Your task to perform on an android device: Search for the new lego star wars 2021 on Target Image 0: 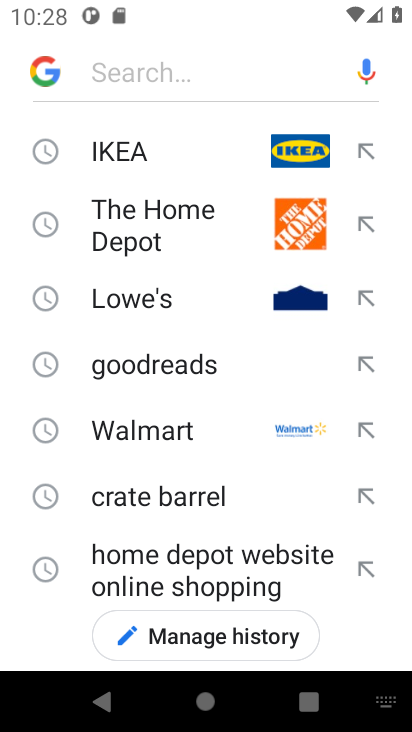
Step 0: press home button
Your task to perform on an android device: Search for the new lego star wars 2021 on Target Image 1: 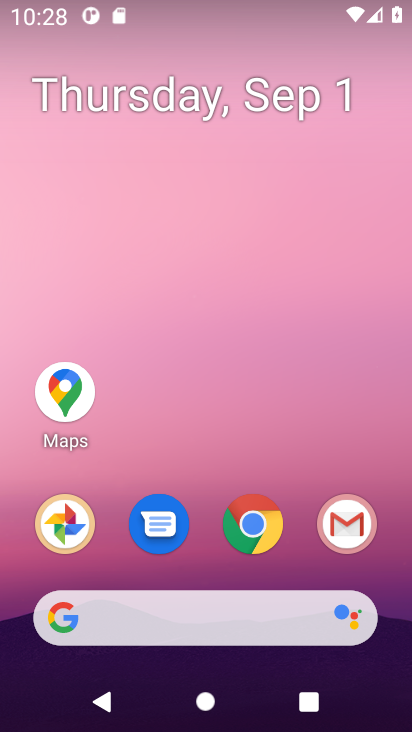
Step 1: click (216, 615)
Your task to perform on an android device: Search for the new lego star wars 2021 on Target Image 2: 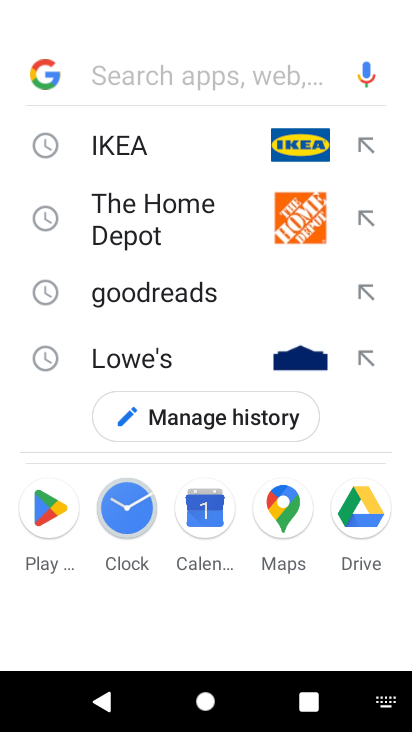
Step 2: press enter
Your task to perform on an android device: Search for the new lego star wars 2021 on Target Image 3: 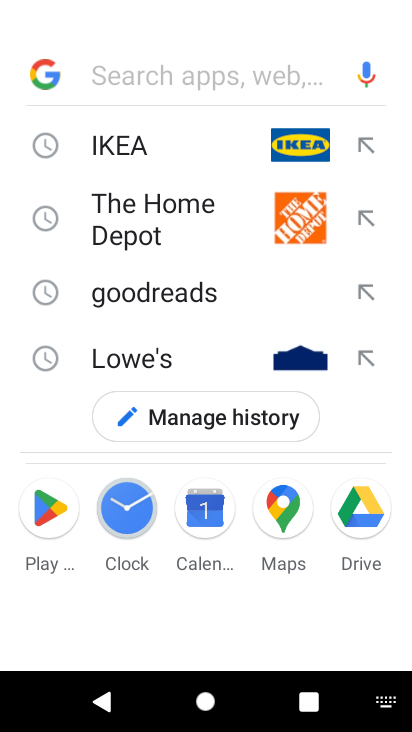
Step 3: type "target"
Your task to perform on an android device: Search for the new lego star wars 2021 on Target Image 4: 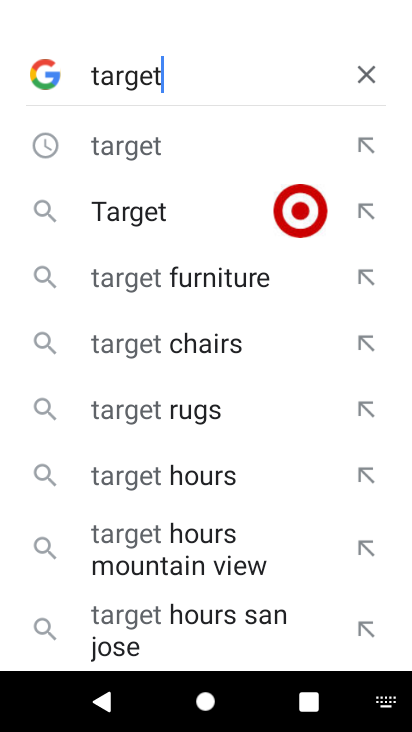
Step 4: click (147, 144)
Your task to perform on an android device: Search for the new lego star wars 2021 on Target Image 5: 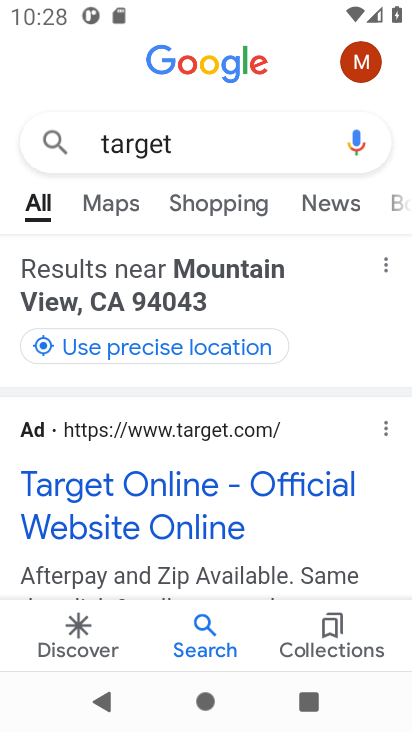
Step 5: click (216, 498)
Your task to perform on an android device: Search for the new lego star wars 2021 on Target Image 6: 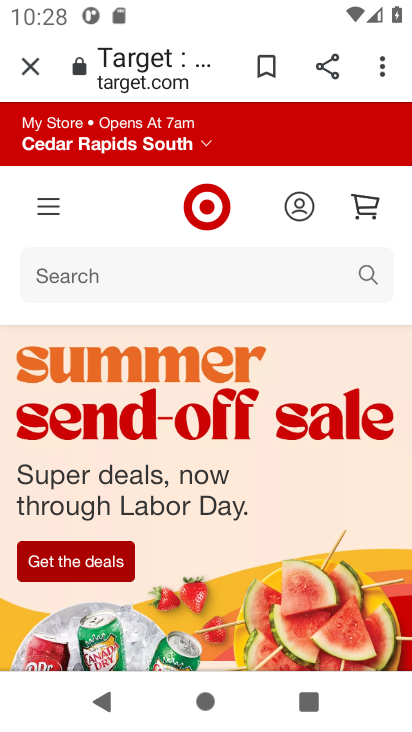
Step 6: click (165, 276)
Your task to perform on an android device: Search for the new lego star wars 2021 on Target Image 7: 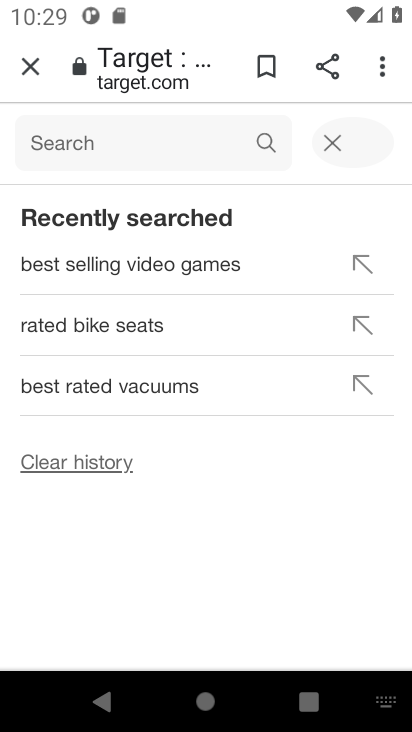
Step 7: press enter
Your task to perform on an android device: Search for the new lego star wars 2021 on Target Image 8: 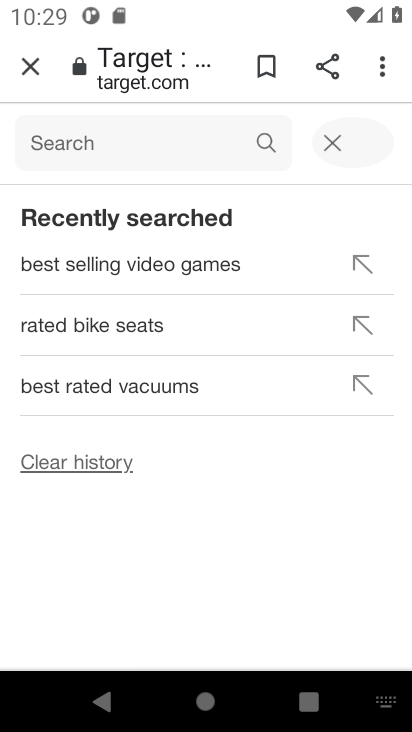
Step 8: type "new lego star wars 2021"
Your task to perform on an android device: Search for the new lego star wars 2021 on Target Image 9: 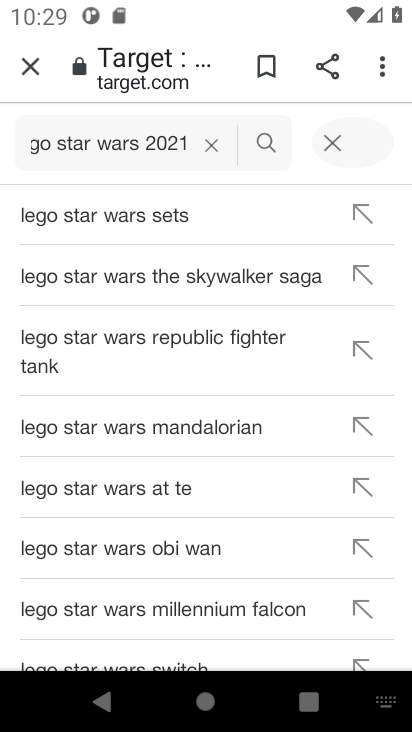
Step 9: click (261, 135)
Your task to perform on an android device: Search for the new lego star wars 2021 on Target Image 10: 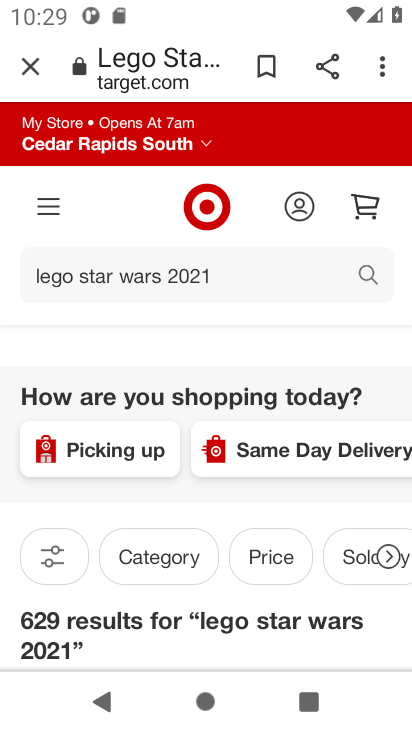
Step 10: task complete